Your task to perform on an android device: Open privacy settings Image 0: 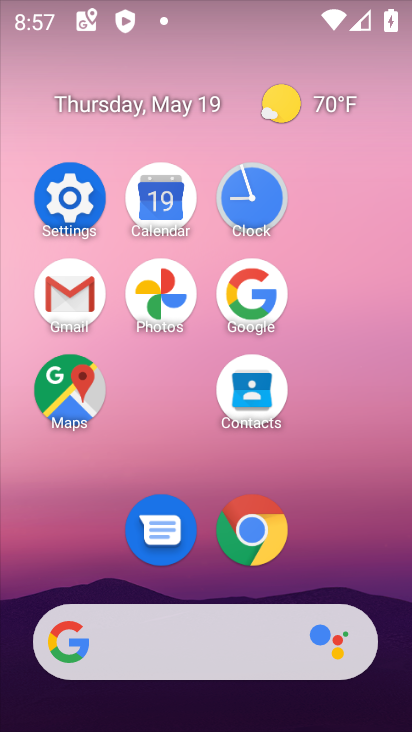
Step 0: click (64, 217)
Your task to perform on an android device: Open privacy settings Image 1: 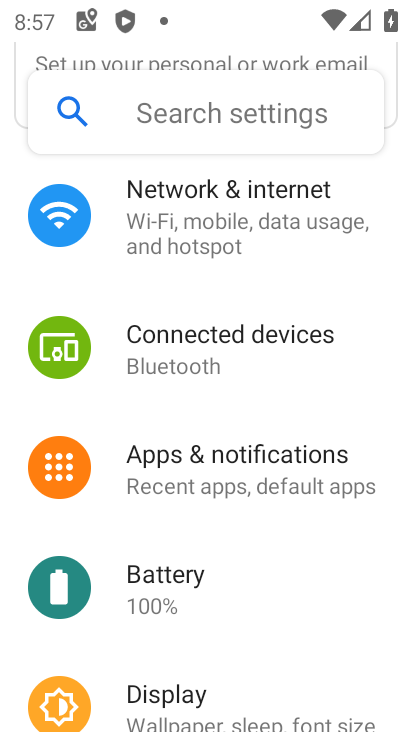
Step 1: drag from (322, 555) to (325, 226)
Your task to perform on an android device: Open privacy settings Image 2: 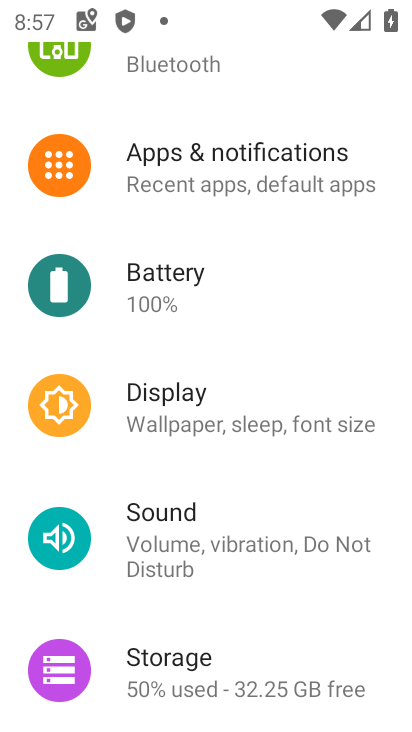
Step 2: drag from (295, 551) to (280, 272)
Your task to perform on an android device: Open privacy settings Image 3: 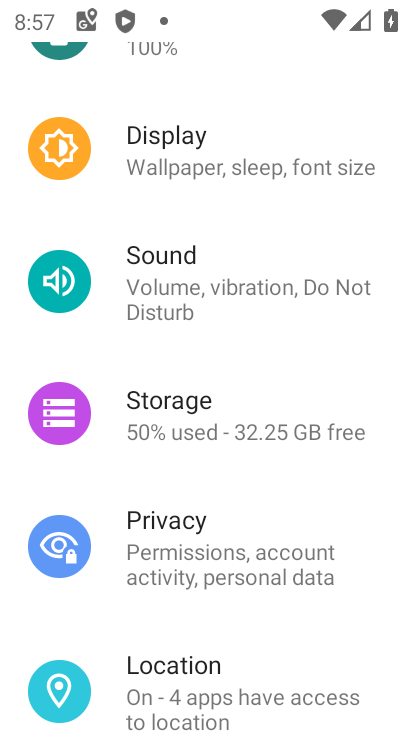
Step 3: click (281, 537)
Your task to perform on an android device: Open privacy settings Image 4: 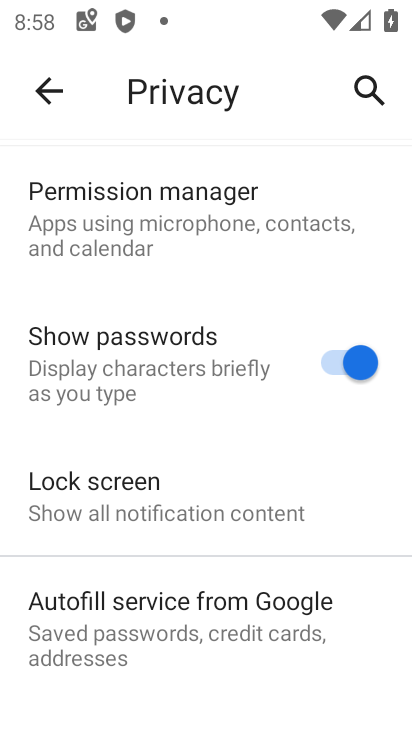
Step 4: task complete